Your task to perform on an android device: delete the emails in spam in the gmail app Image 0: 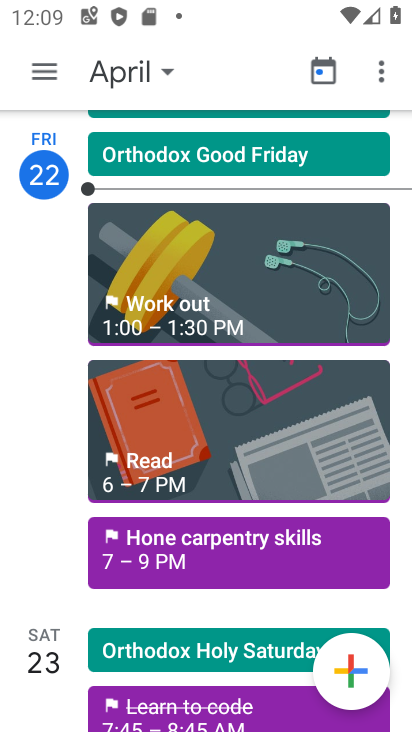
Step 0: press home button
Your task to perform on an android device: delete the emails in spam in the gmail app Image 1: 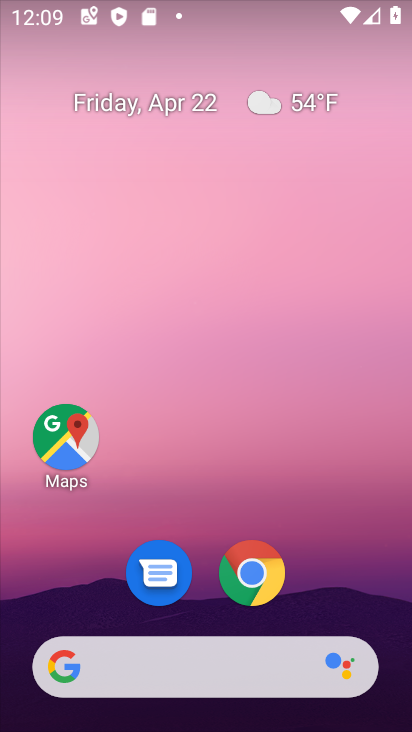
Step 1: drag from (354, 594) to (343, 142)
Your task to perform on an android device: delete the emails in spam in the gmail app Image 2: 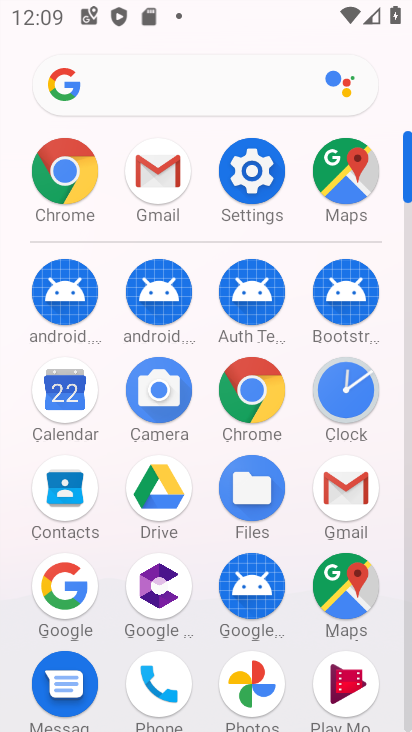
Step 2: click (340, 492)
Your task to perform on an android device: delete the emails in spam in the gmail app Image 3: 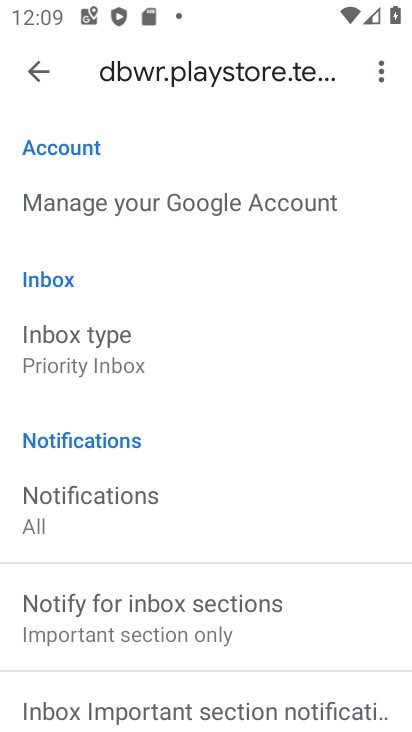
Step 3: click (36, 74)
Your task to perform on an android device: delete the emails in spam in the gmail app Image 4: 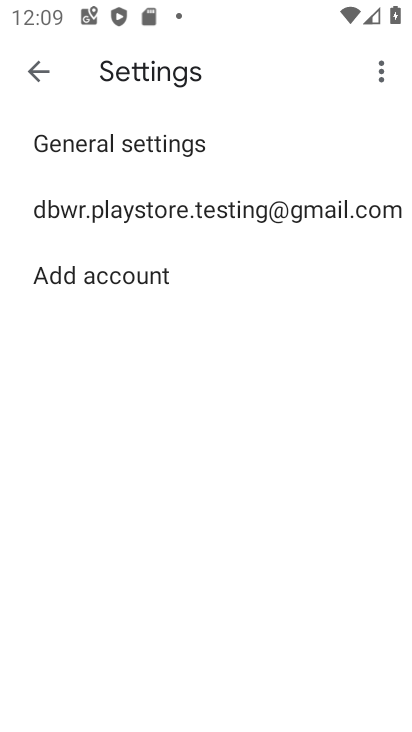
Step 4: click (33, 65)
Your task to perform on an android device: delete the emails in spam in the gmail app Image 5: 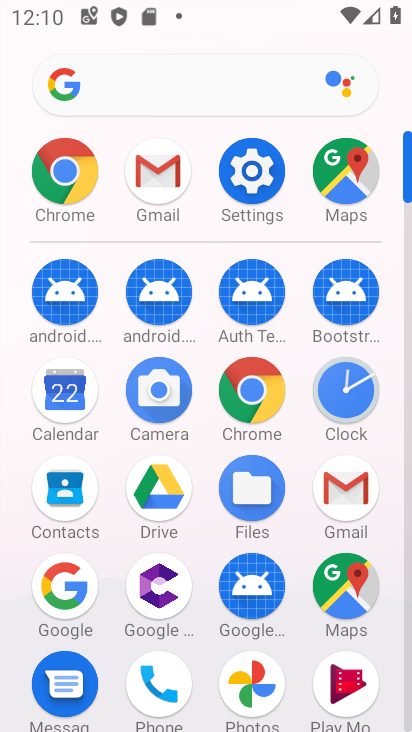
Step 5: click (348, 480)
Your task to perform on an android device: delete the emails in spam in the gmail app Image 6: 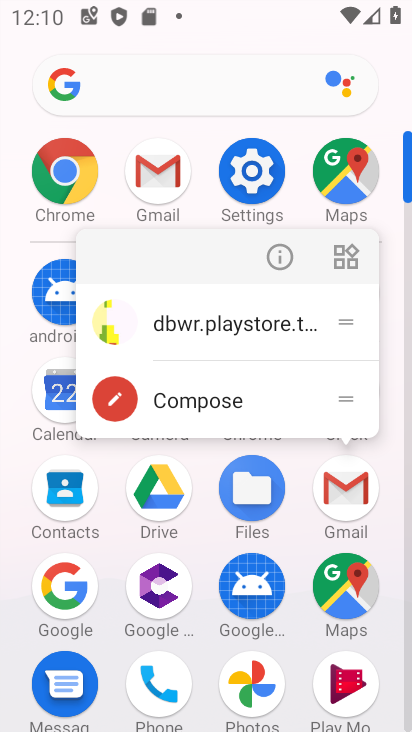
Step 6: click (337, 481)
Your task to perform on an android device: delete the emails in spam in the gmail app Image 7: 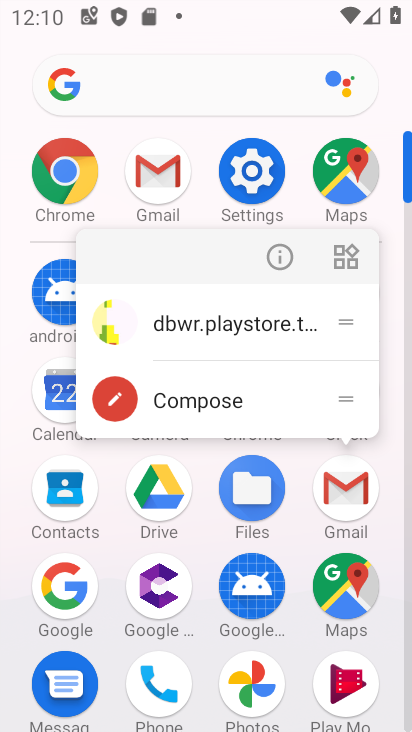
Step 7: click (337, 481)
Your task to perform on an android device: delete the emails in spam in the gmail app Image 8: 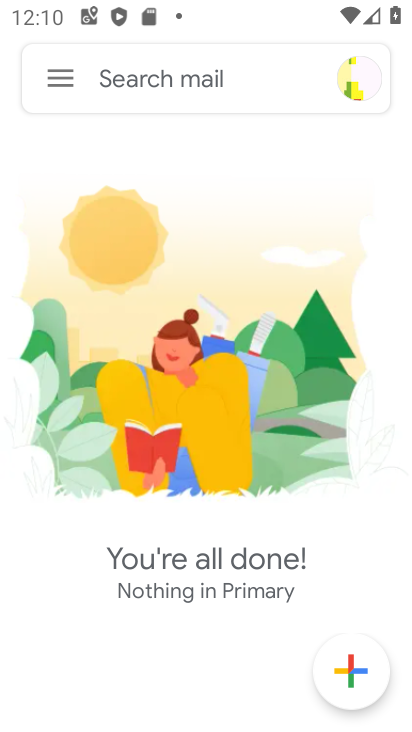
Step 8: click (49, 87)
Your task to perform on an android device: delete the emails in spam in the gmail app Image 9: 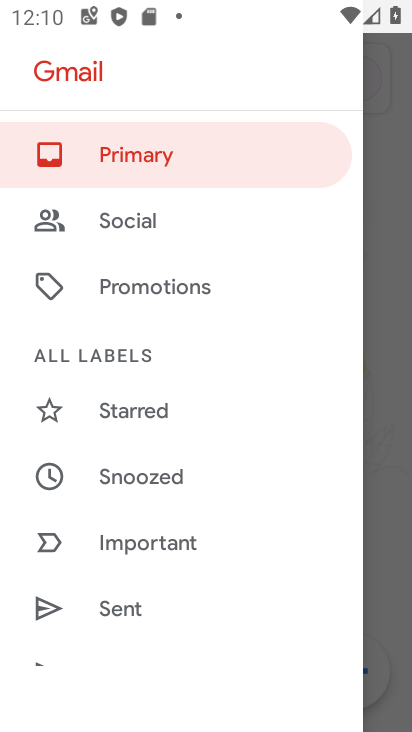
Step 9: drag from (184, 484) to (216, 227)
Your task to perform on an android device: delete the emails in spam in the gmail app Image 10: 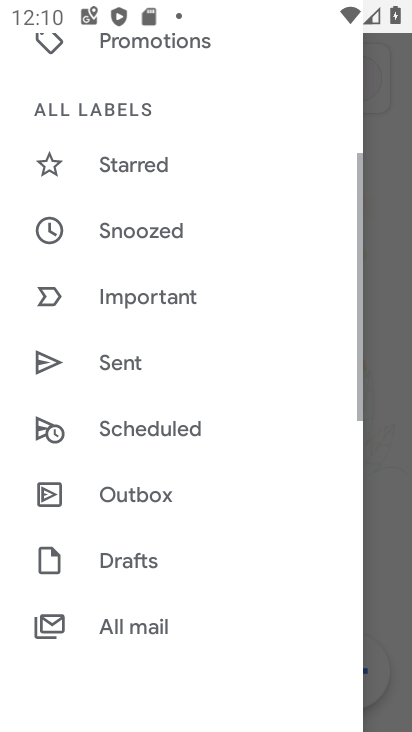
Step 10: drag from (166, 598) to (251, 235)
Your task to perform on an android device: delete the emails in spam in the gmail app Image 11: 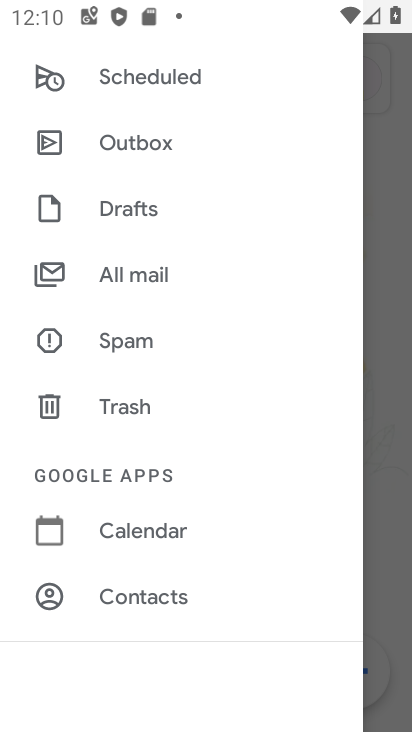
Step 11: click (128, 353)
Your task to perform on an android device: delete the emails in spam in the gmail app Image 12: 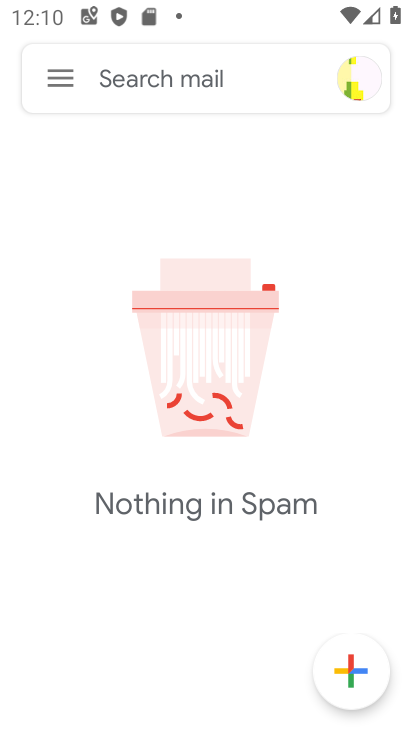
Step 12: task complete